Your task to perform on an android device: turn off translation in the chrome app Image 0: 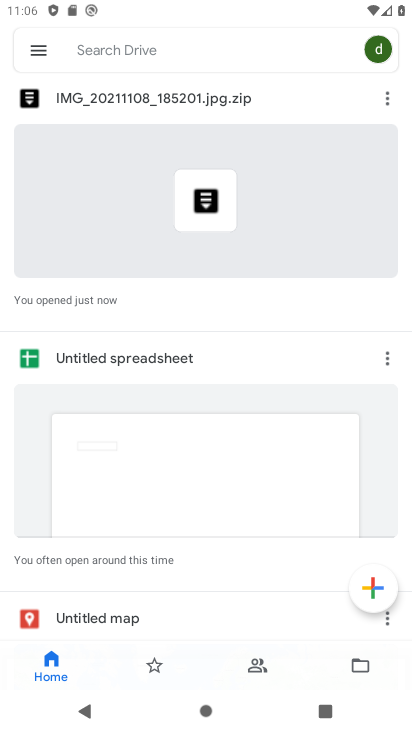
Step 0: press home button
Your task to perform on an android device: turn off translation in the chrome app Image 1: 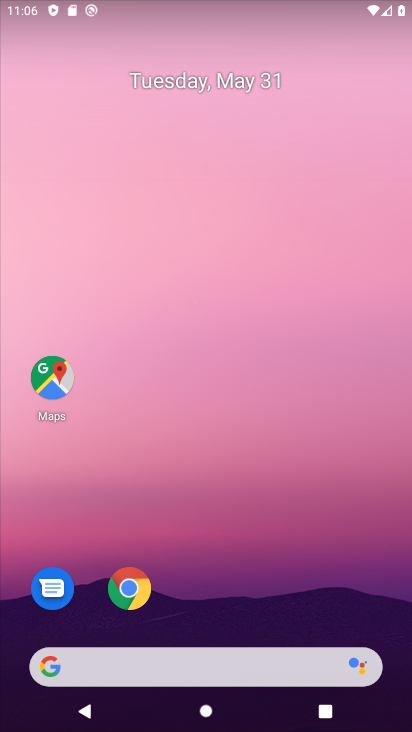
Step 1: click (135, 594)
Your task to perform on an android device: turn off translation in the chrome app Image 2: 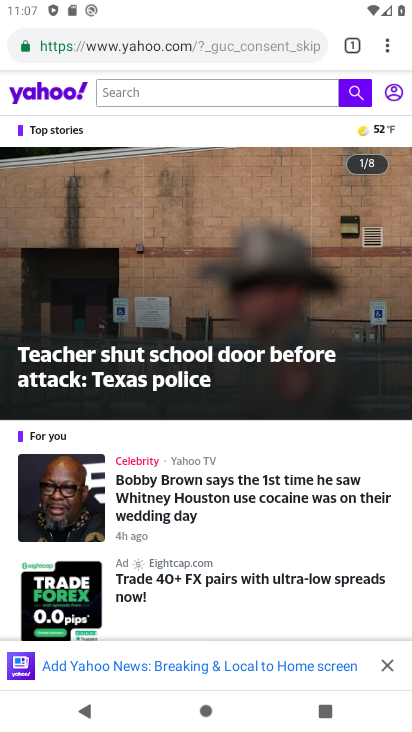
Step 2: click (385, 48)
Your task to perform on an android device: turn off translation in the chrome app Image 3: 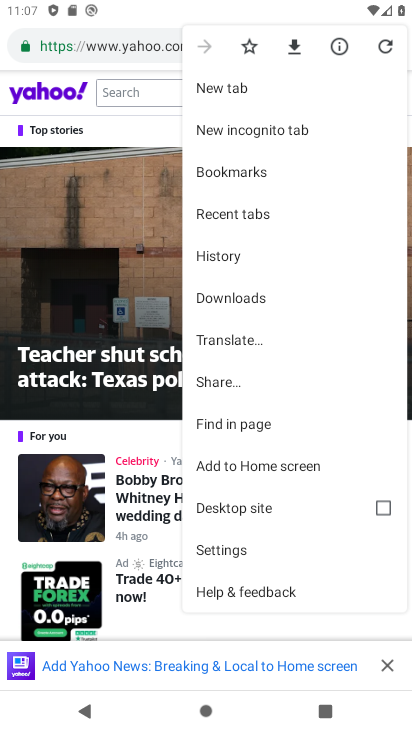
Step 3: click (245, 566)
Your task to perform on an android device: turn off translation in the chrome app Image 4: 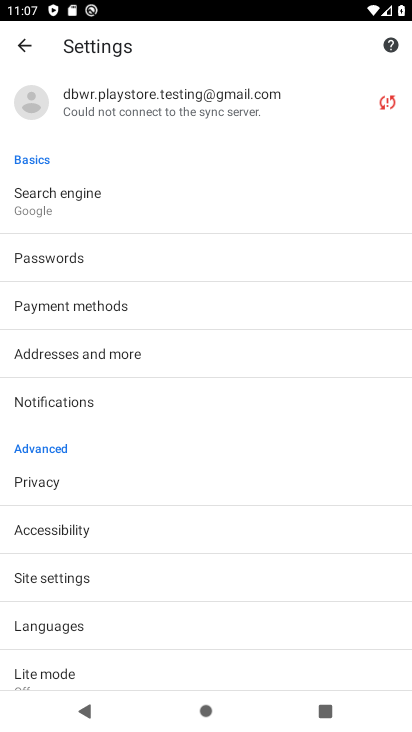
Step 4: click (55, 618)
Your task to perform on an android device: turn off translation in the chrome app Image 5: 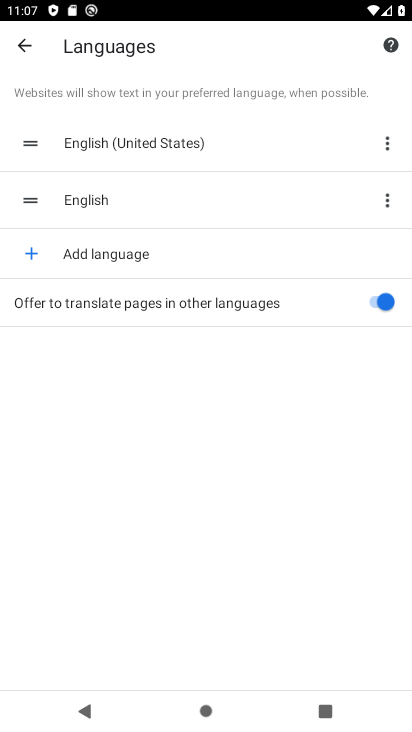
Step 5: click (374, 310)
Your task to perform on an android device: turn off translation in the chrome app Image 6: 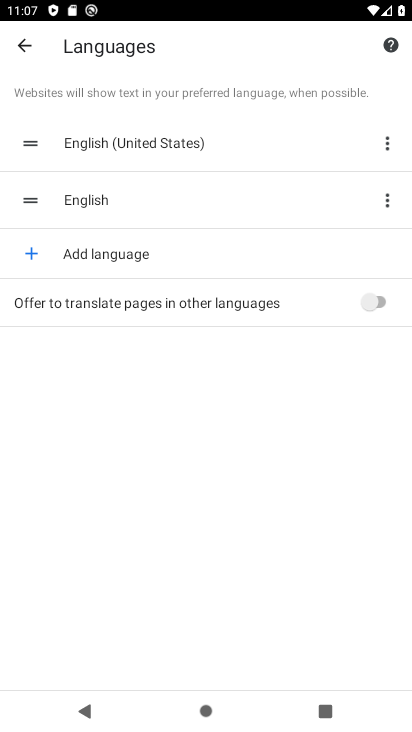
Step 6: task complete